Your task to perform on an android device: Go to settings Image 0: 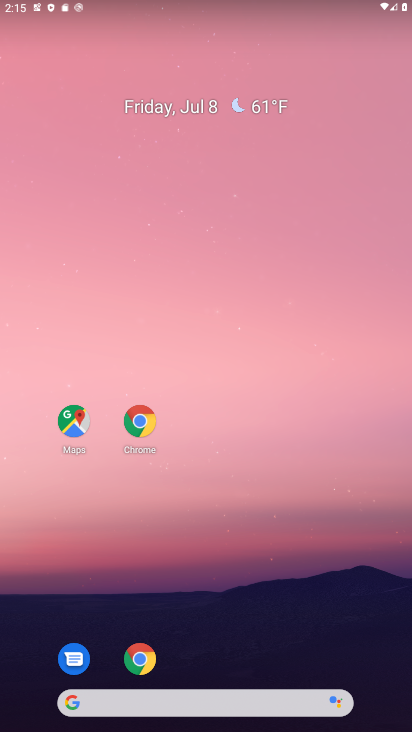
Step 0: drag from (231, 668) to (237, 92)
Your task to perform on an android device: Go to settings Image 1: 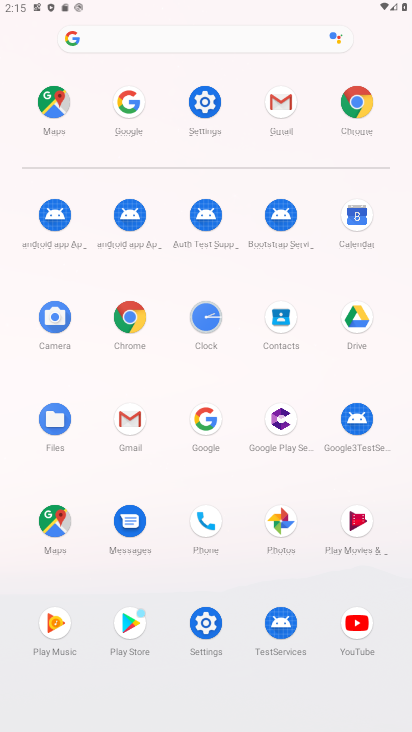
Step 1: click (213, 635)
Your task to perform on an android device: Go to settings Image 2: 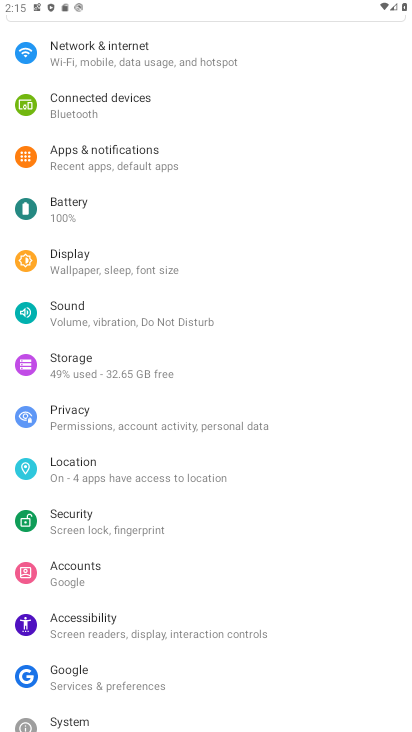
Step 2: task complete